Your task to perform on an android device: find which apps use the phone's location Image 0: 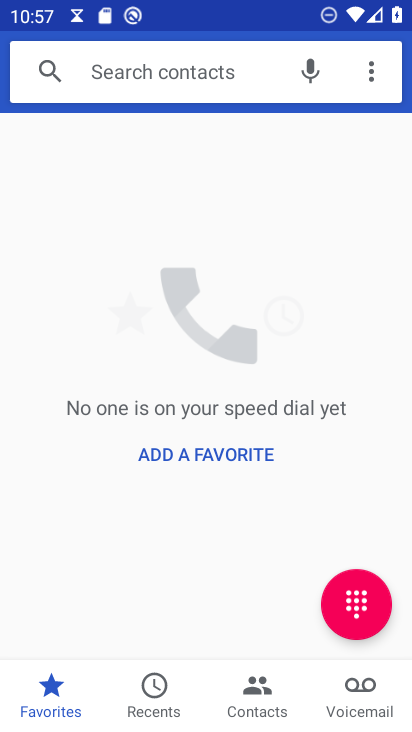
Step 0: press home button
Your task to perform on an android device: find which apps use the phone's location Image 1: 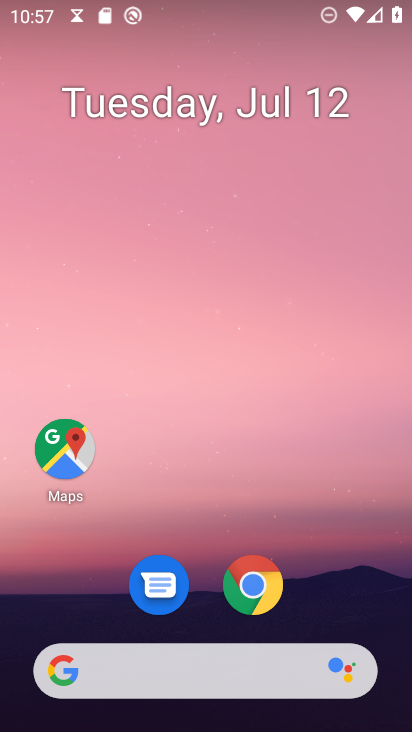
Step 1: drag from (181, 677) to (278, 13)
Your task to perform on an android device: find which apps use the phone's location Image 2: 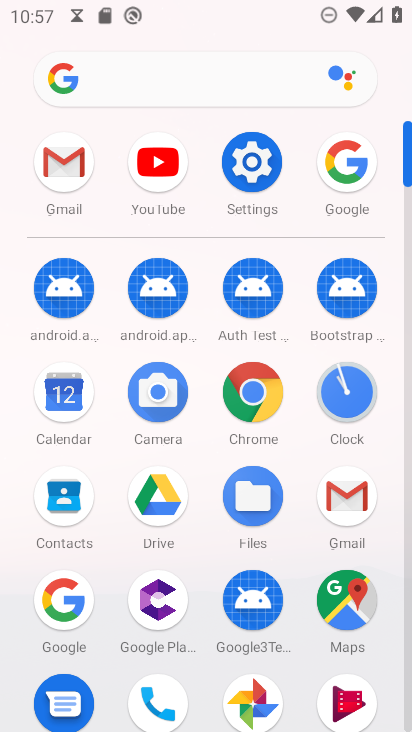
Step 2: click (245, 159)
Your task to perform on an android device: find which apps use the phone's location Image 3: 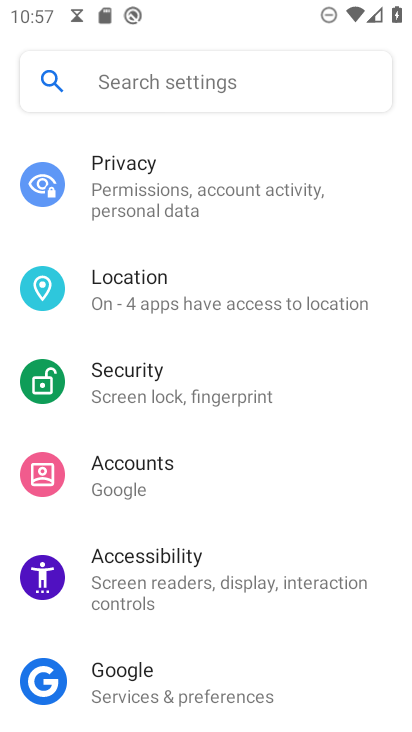
Step 3: drag from (212, 638) to (243, 162)
Your task to perform on an android device: find which apps use the phone's location Image 4: 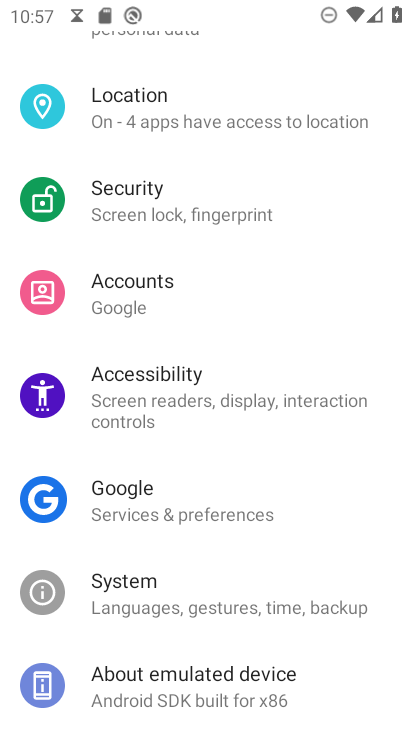
Step 4: click (152, 104)
Your task to perform on an android device: find which apps use the phone's location Image 5: 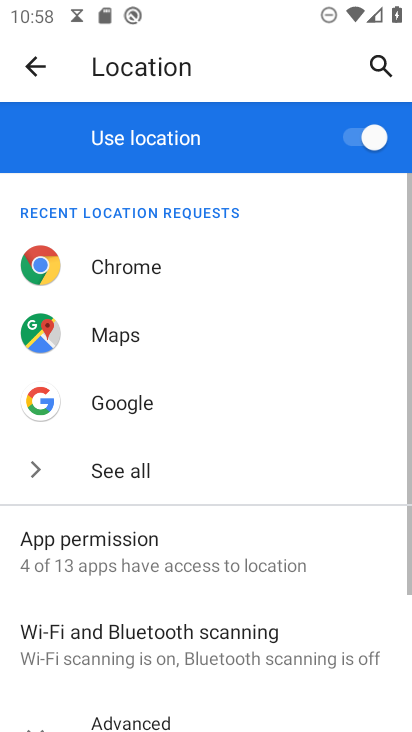
Step 5: click (115, 553)
Your task to perform on an android device: find which apps use the phone's location Image 6: 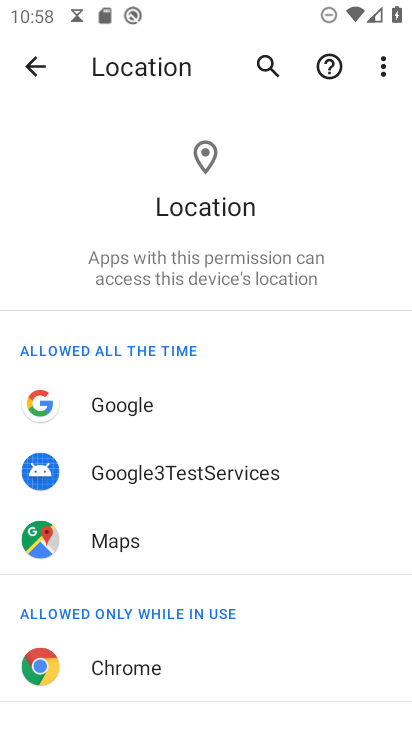
Step 6: drag from (207, 639) to (257, 149)
Your task to perform on an android device: find which apps use the phone's location Image 7: 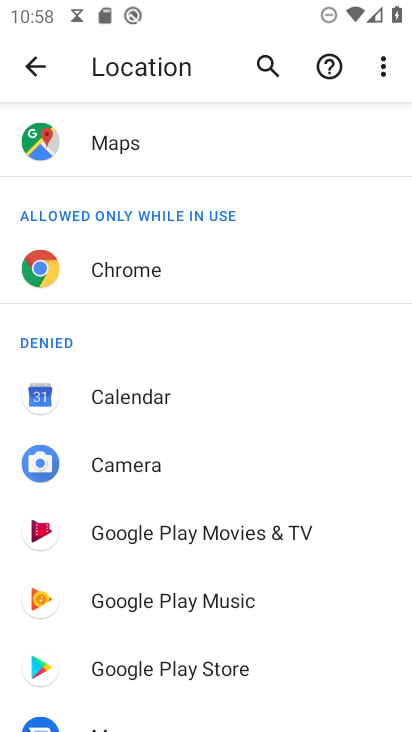
Step 7: drag from (194, 677) to (234, 227)
Your task to perform on an android device: find which apps use the phone's location Image 8: 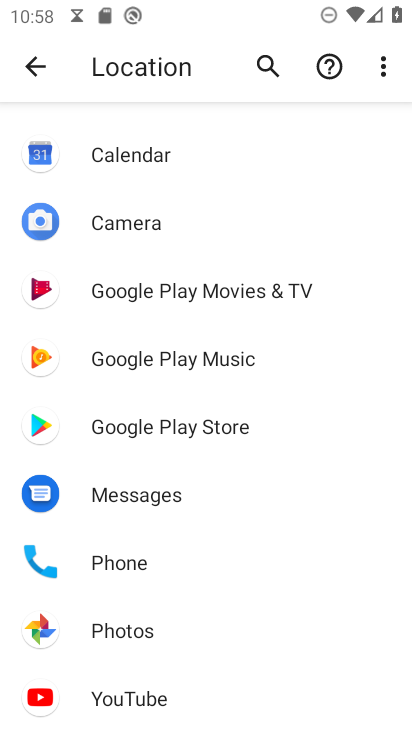
Step 8: click (129, 555)
Your task to perform on an android device: find which apps use the phone's location Image 9: 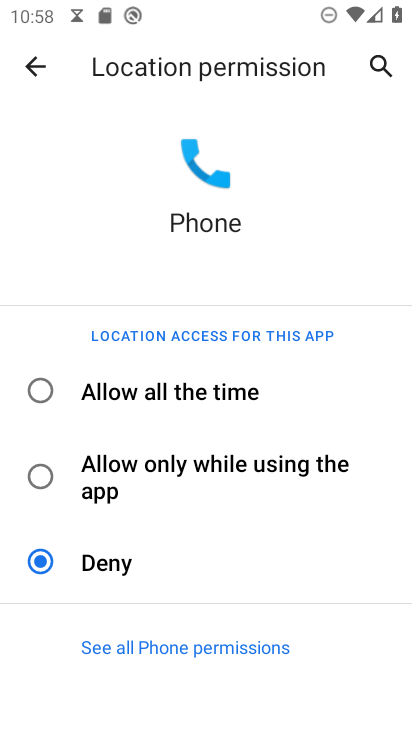
Step 9: task complete